Your task to perform on an android device: Open notification settings Image 0: 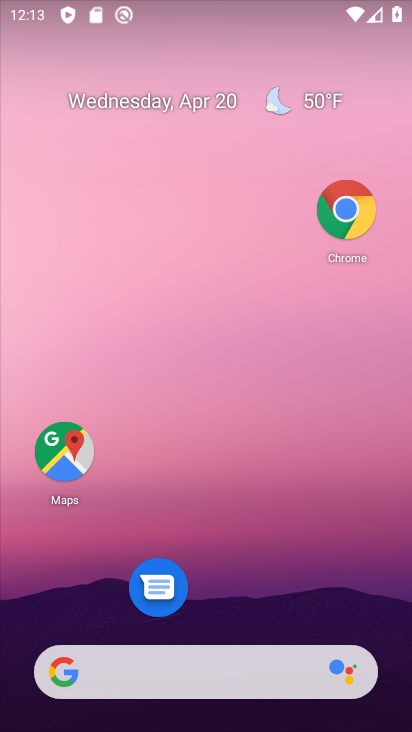
Step 0: drag from (246, 592) to (375, 0)
Your task to perform on an android device: Open notification settings Image 1: 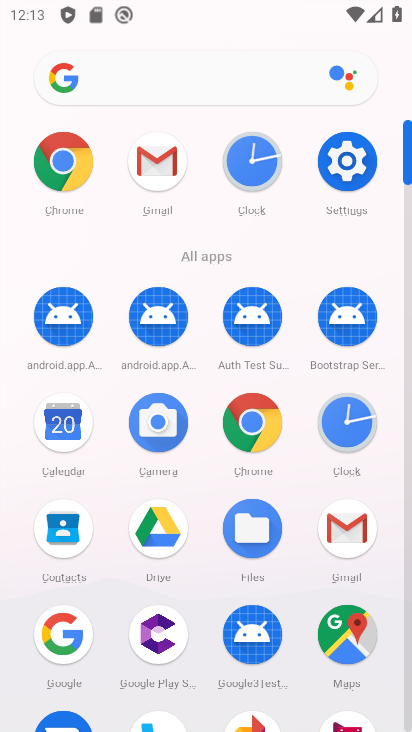
Step 1: click (350, 177)
Your task to perform on an android device: Open notification settings Image 2: 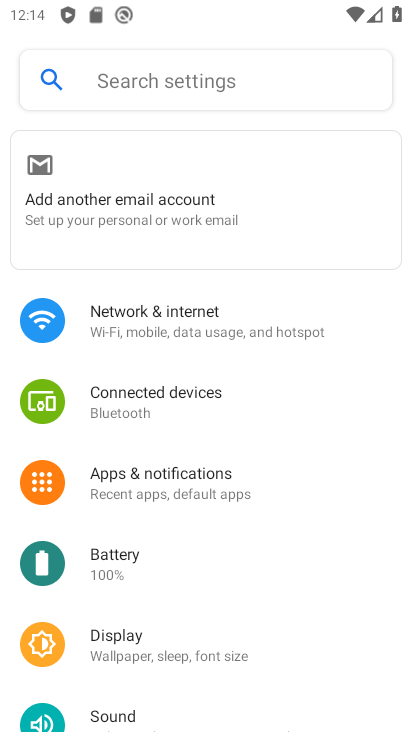
Step 2: click (151, 492)
Your task to perform on an android device: Open notification settings Image 3: 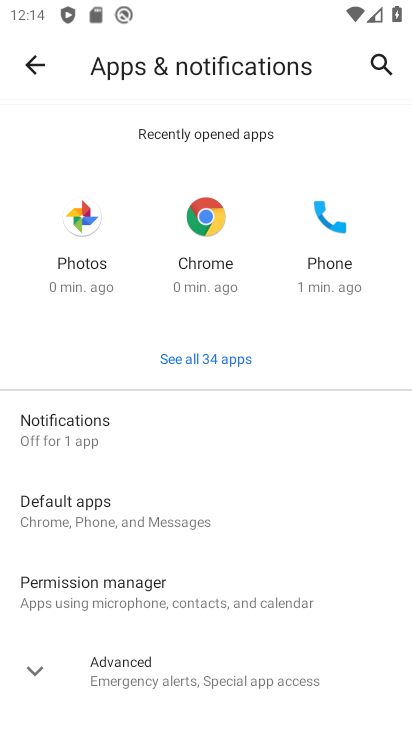
Step 3: click (80, 440)
Your task to perform on an android device: Open notification settings Image 4: 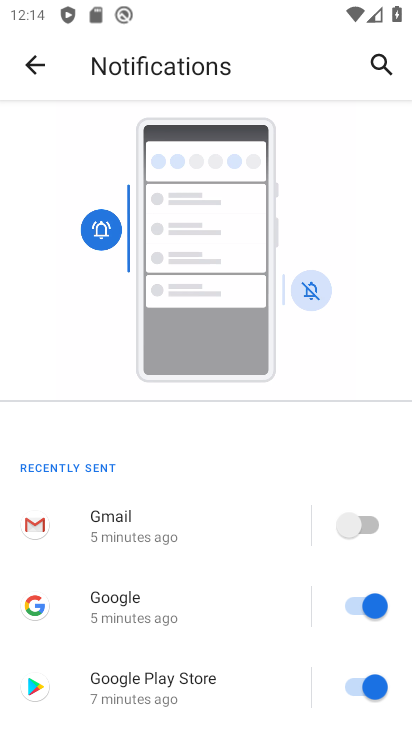
Step 4: task complete